Your task to perform on an android device: Open Google Maps Image 0: 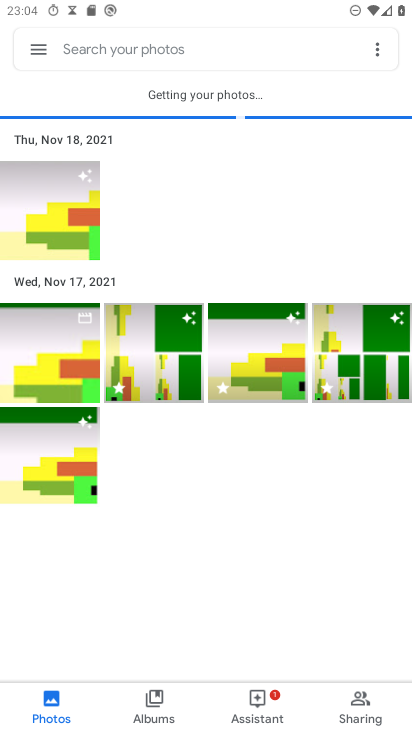
Step 0: press home button
Your task to perform on an android device: Open Google Maps Image 1: 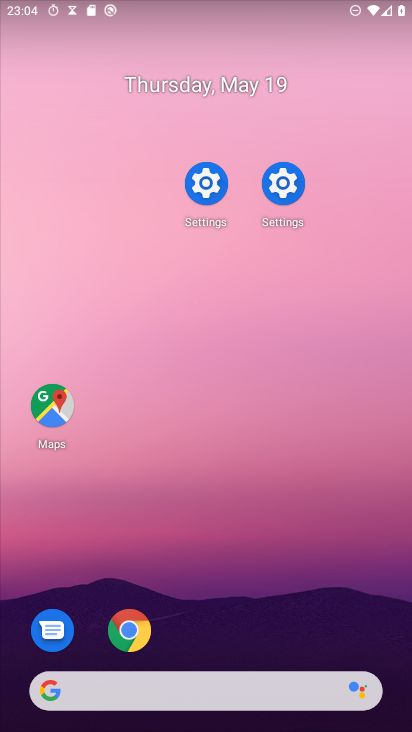
Step 1: drag from (311, 594) to (92, 166)
Your task to perform on an android device: Open Google Maps Image 2: 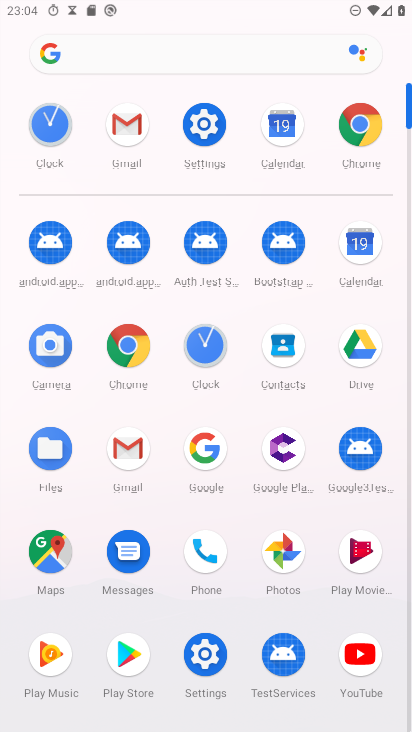
Step 2: click (58, 546)
Your task to perform on an android device: Open Google Maps Image 3: 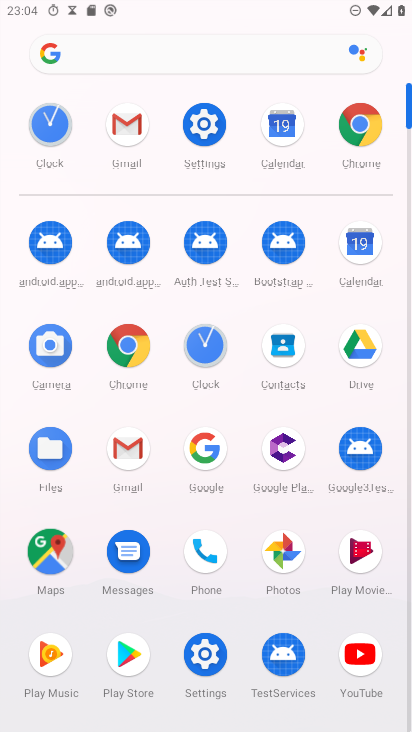
Step 3: click (58, 546)
Your task to perform on an android device: Open Google Maps Image 4: 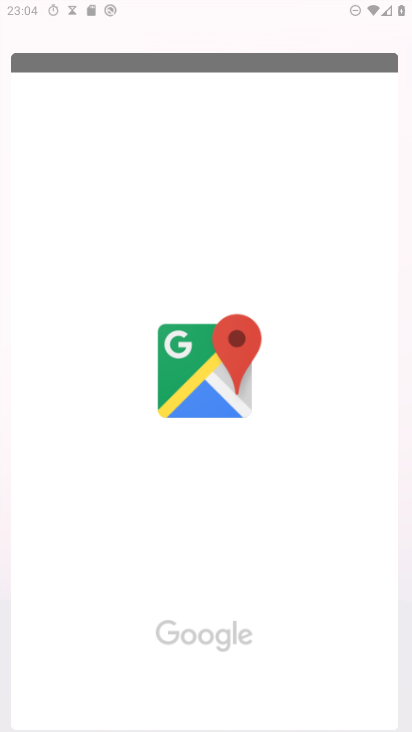
Step 4: click (58, 546)
Your task to perform on an android device: Open Google Maps Image 5: 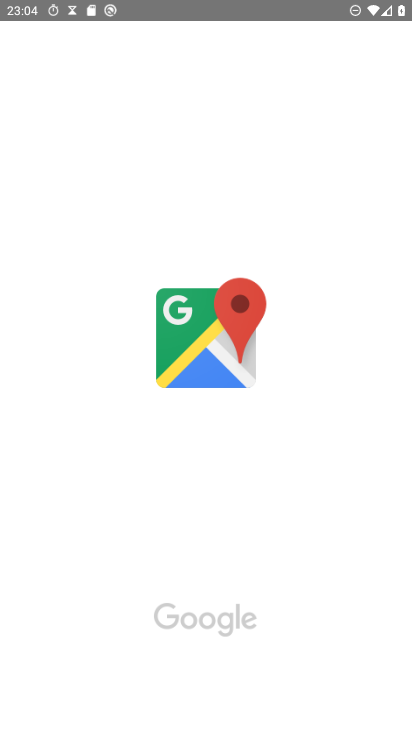
Step 5: click (58, 546)
Your task to perform on an android device: Open Google Maps Image 6: 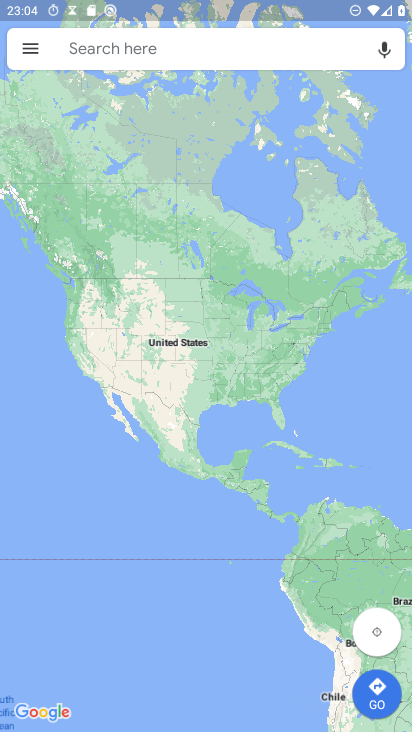
Step 6: task complete